Your task to perform on an android device: set an alarm Image 0: 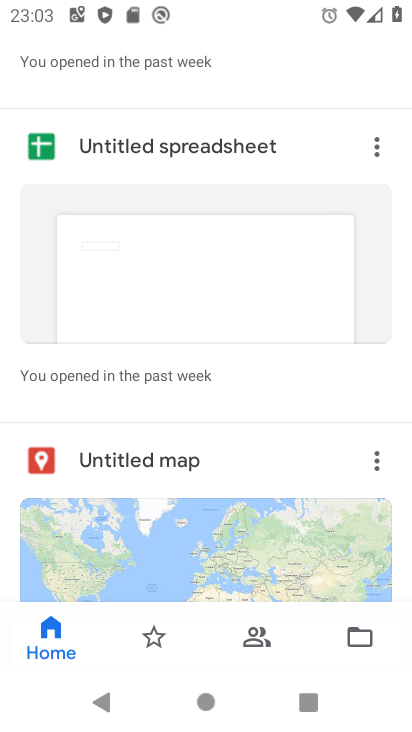
Step 0: press home button
Your task to perform on an android device: set an alarm Image 1: 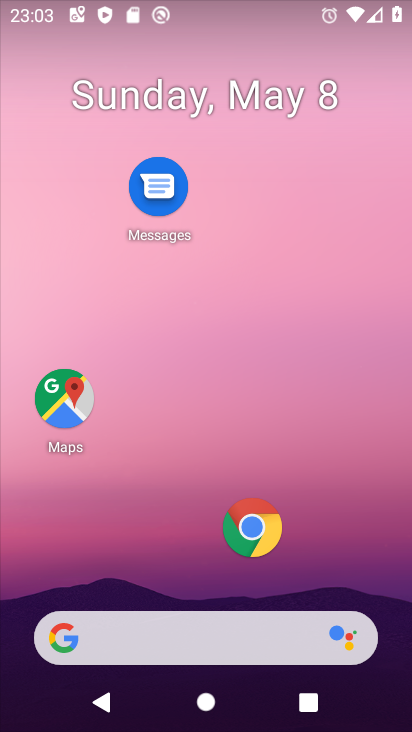
Step 1: drag from (174, 544) to (214, 69)
Your task to perform on an android device: set an alarm Image 2: 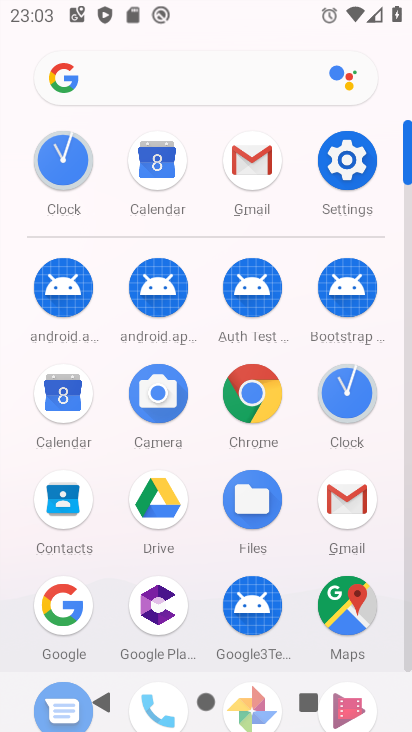
Step 2: click (342, 395)
Your task to perform on an android device: set an alarm Image 3: 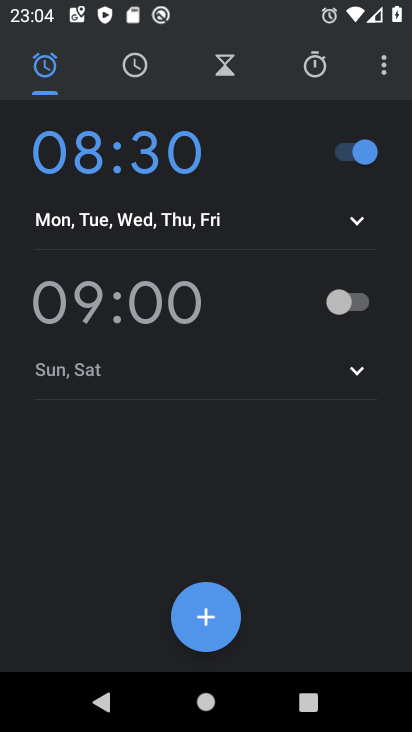
Step 3: click (43, 73)
Your task to perform on an android device: set an alarm Image 4: 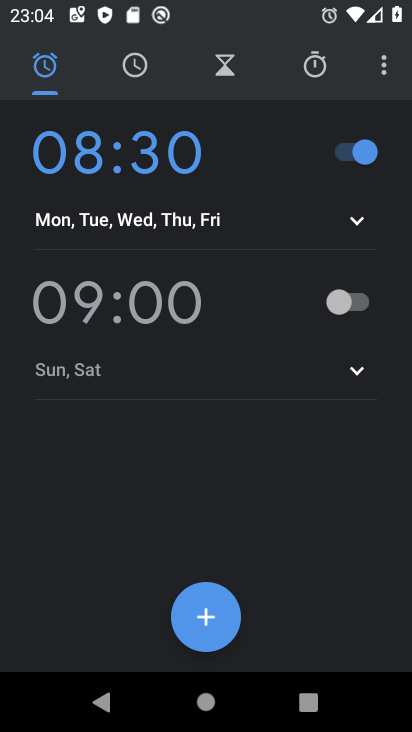
Step 4: click (352, 299)
Your task to perform on an android device: set an alarm Image 5: 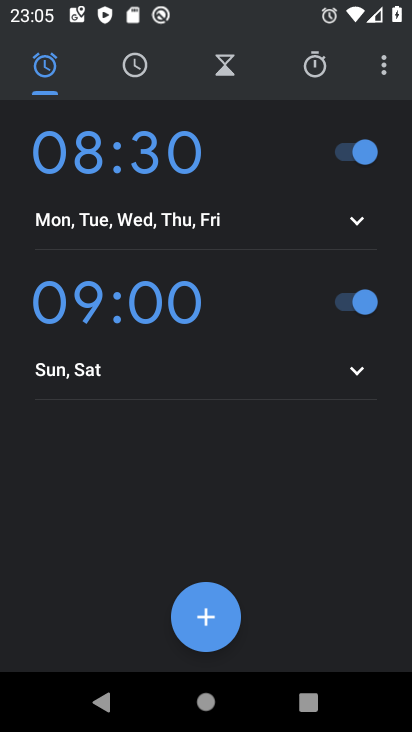
Step 5: task complete